Your task to perform on an android device: Do I have any events today? Image 0: 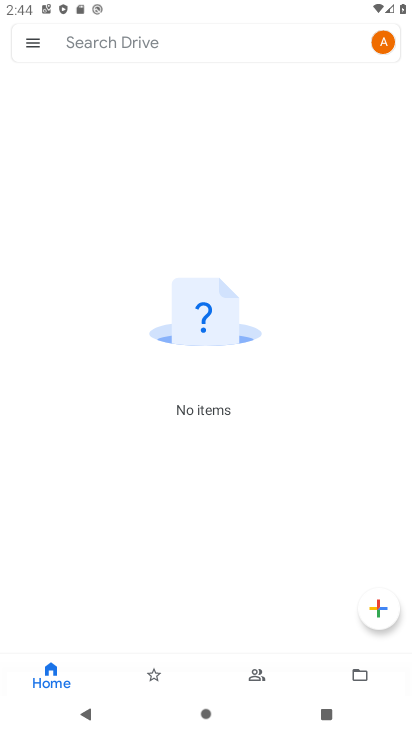
Step 0: press home button
Your task to perform on an android device: Do I have any events today? Image 1: 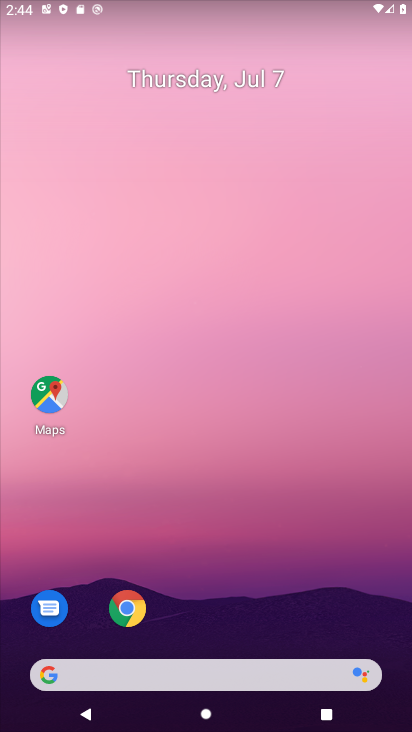
Step 1: drag from (396, 681) to (327, 113)
Your task to perform on an android device: Do I have any events today? Image 2: 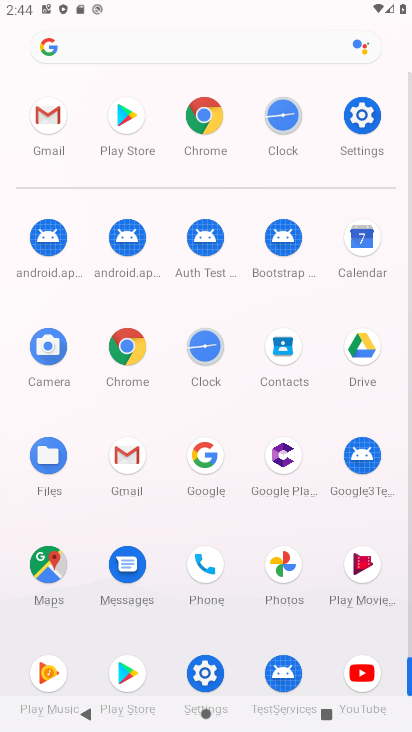
Step 2: click (409, 646)
Your task to perform on an android device: Do I have any events today? Image 3: 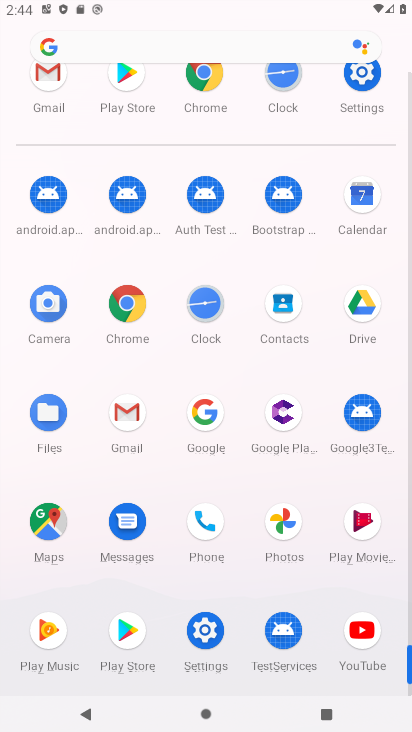
Step 3: click (360, 199)
Your task to perform on an android device: Do I have any events today? Image 4: 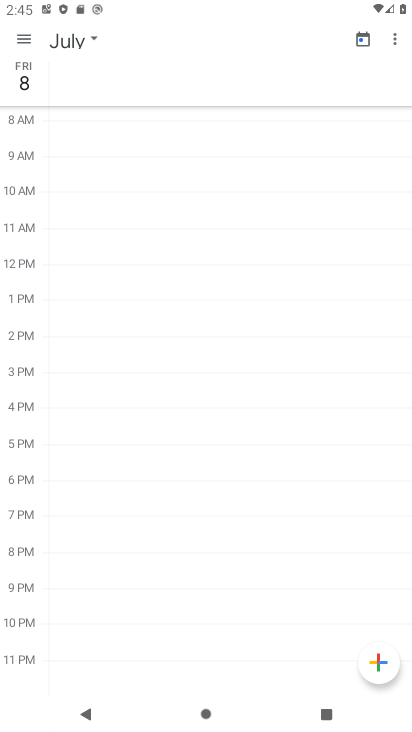
Step 4: click (93, 39)
Your task to perform on an android device: Do I have any events today? Image 5: 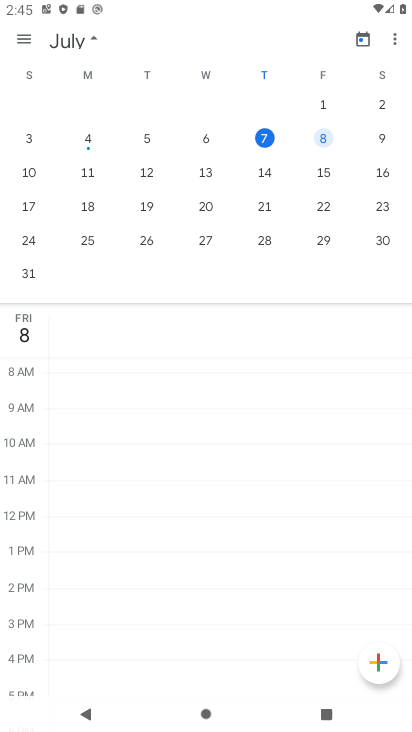
Step 5: click (265, 138)
Your task to perform on an android device: Do I have any events today? Image 6: 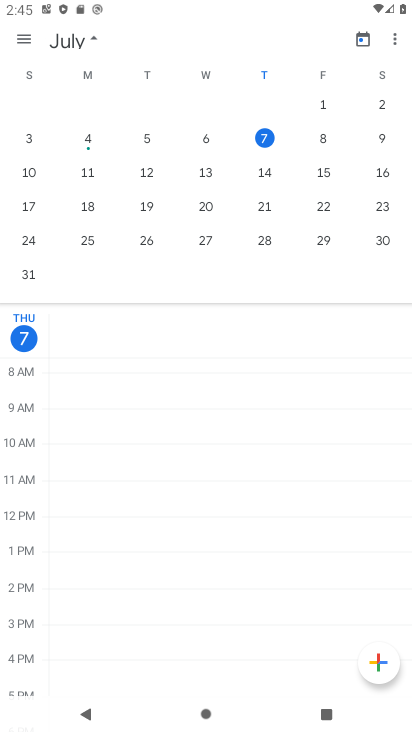
Step 6: task complete